Your task to perform on an android device: change alarm snooze length Image 0: 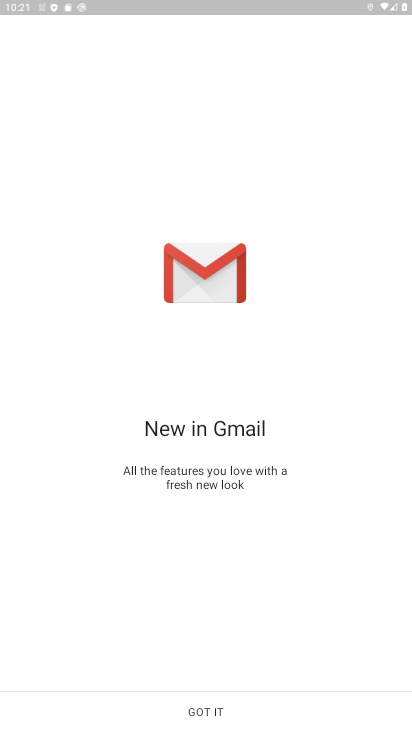
Step 0: press home button
Your task to perform on an android device: change alarm snooze length Image 1: 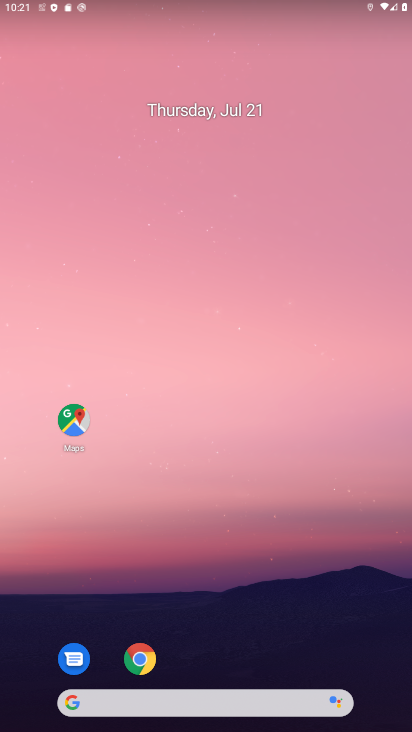
Step 1: drag from (196, 657) to (149, 158)
Your task to perform on an android device: change alarm snooze length Image 2: 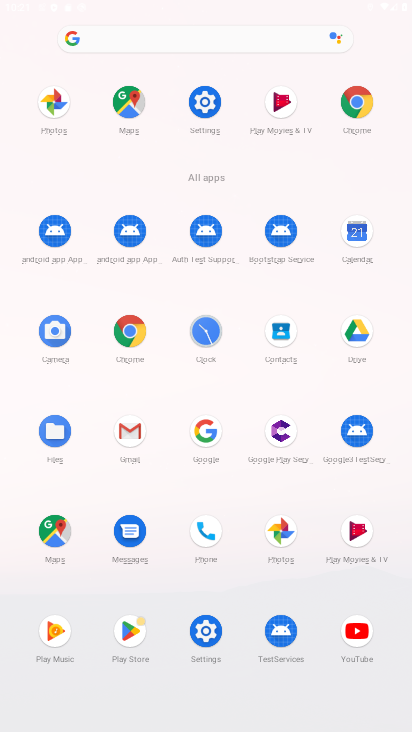
Step 2: click (208, 326)
Your task to perform on an android device: change alarm snooze length Image 3: 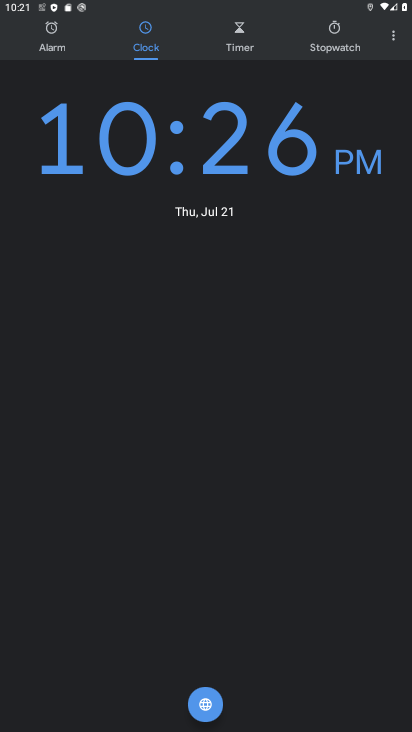
Step 3: click (393, 40)
Your task to perform on an android device: change alarm snooze length Image 4: 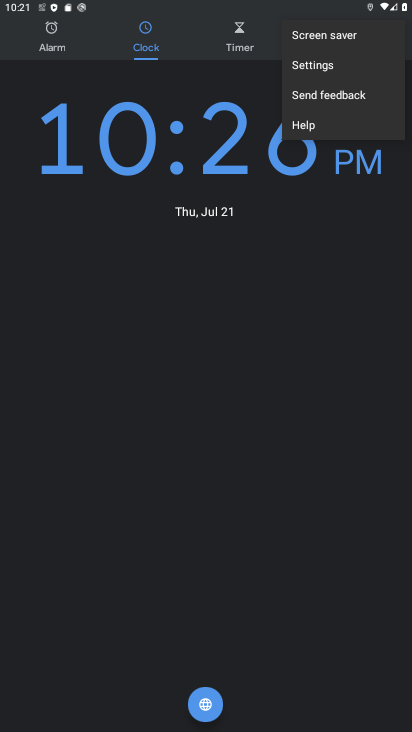
Step 4: click (306, 68)
Your task to perform on an android device: change alarm snooze length Image 5: 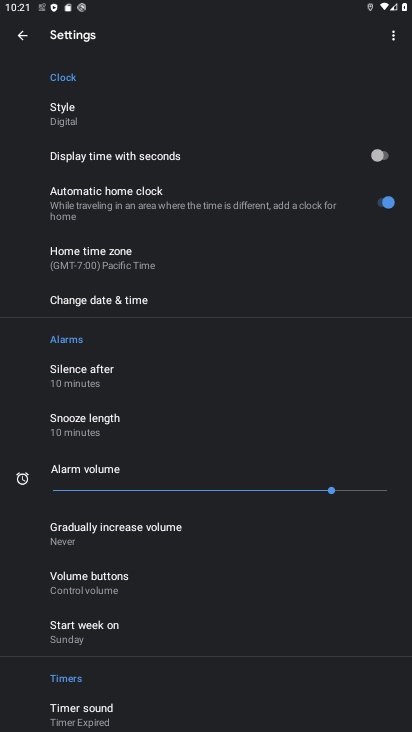
Step 5: click (92, 417)
Your task to perform on an android device: change alarm snooze length Image 6: 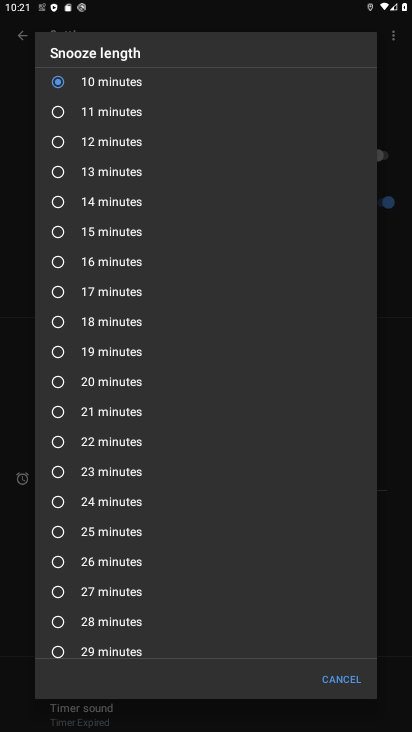
Step 6: click (63, 123)
Your task to perform on an android device: change alarm snooze length Image 7: 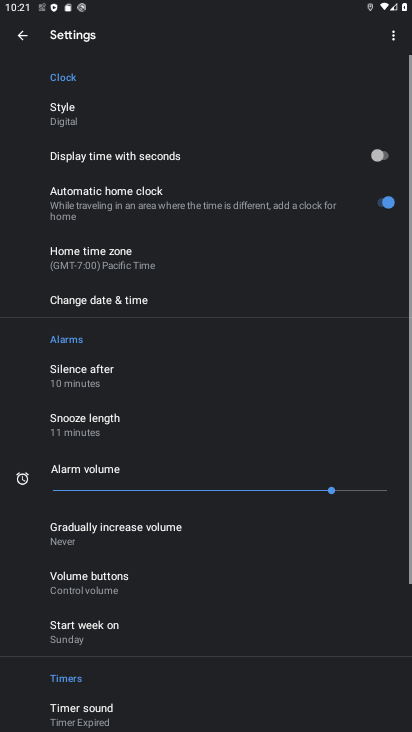
Step 7: task complete